Your task to perform on an android device: Search for sushi restaurants on Maps Image 0: 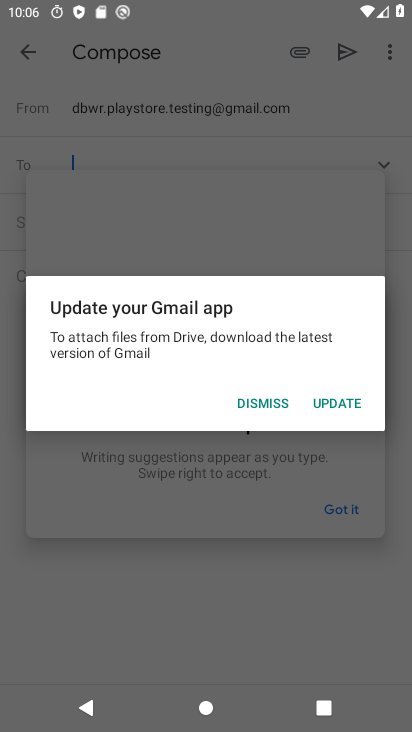
Step 0: press home button
Your task to perform on an android device: Search for sushi restaurants on Maps Image 1: 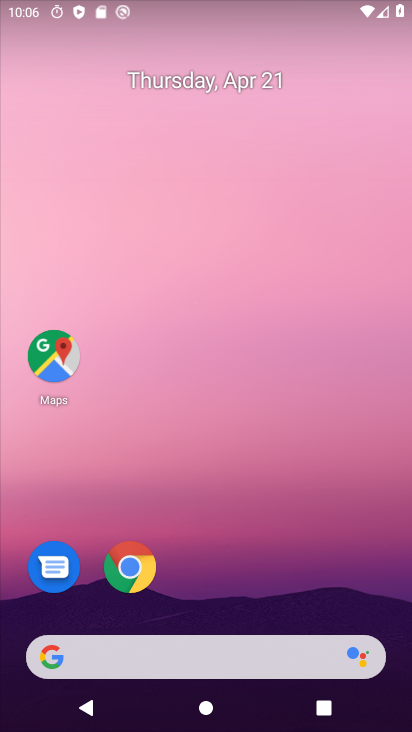
Step 1: click (66, 349)
Your task to perform on an android device: Search for sushi restaurants on Maps Image 2: 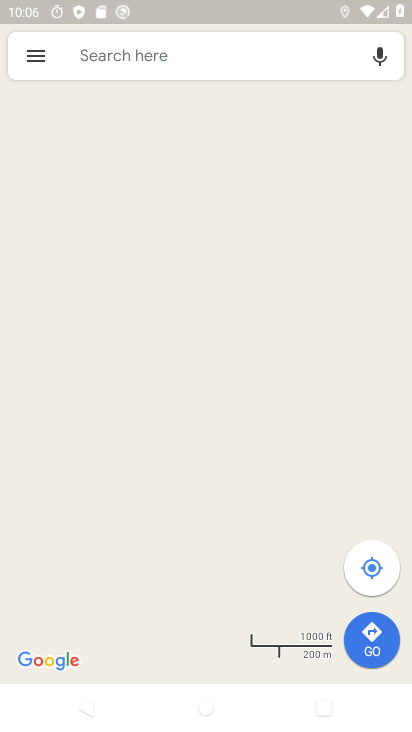
Step 2: click (288, 48)
Your task to perform on an android device: Search for sushi restaurants on Maps Image 3: 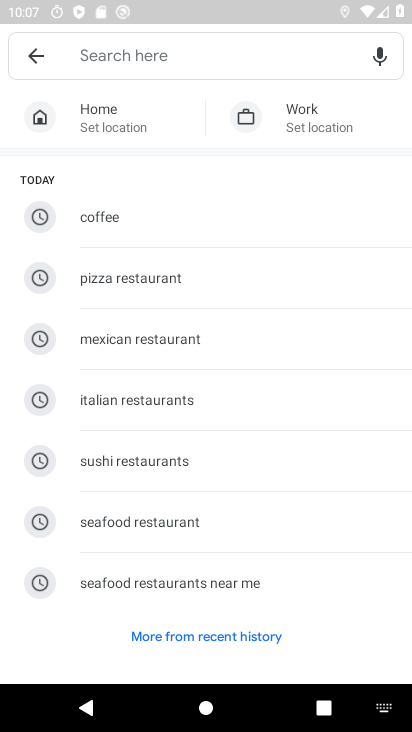
Step 3: type "sushi restaurants"
Your task to perform on an android device: Search for sushi restaurants on Maps Image 4: 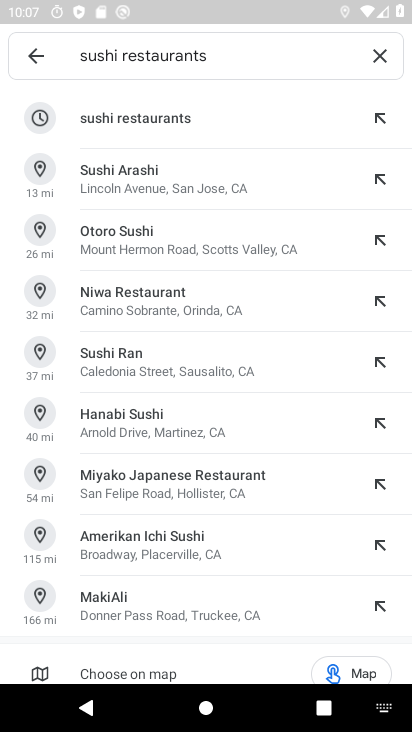
Step 4: click (208, 130)
Your task to perform on an android device: Search for sushi restaurants on Maps Image 5: 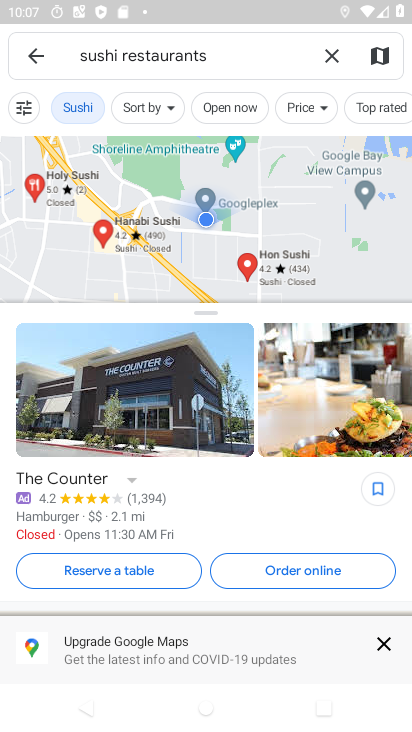
Step 5: task complete